Your task to perform on an android device: Add usb-a to the cart on bestbuy, then select checkout. Image 0: 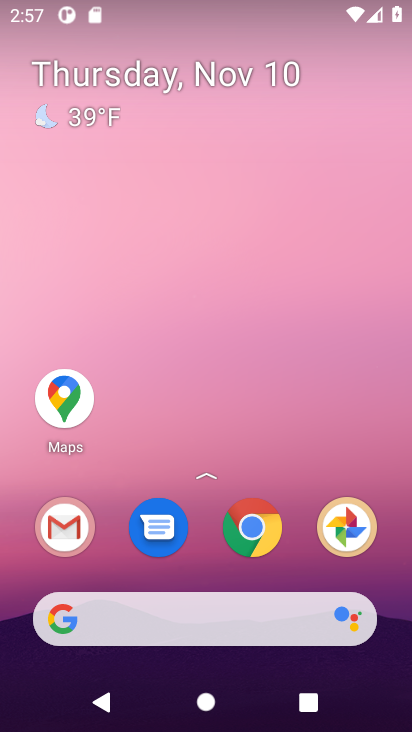
Step 0: drag from (182, 270) to (195, 64)
Your task to perform on an android device: Add usb-a to the cart on bestbuy, then select checkout. Image 1: 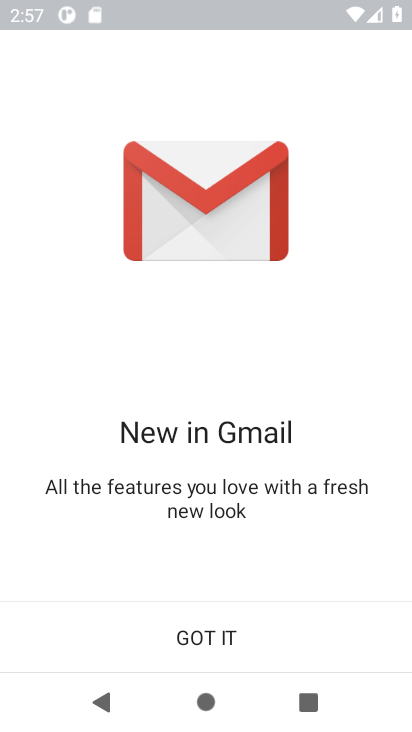
Step 1: press home button
Your task to perform on an android device: Add usb-a to the cart on bestbuy, then select checkout. Image 2: 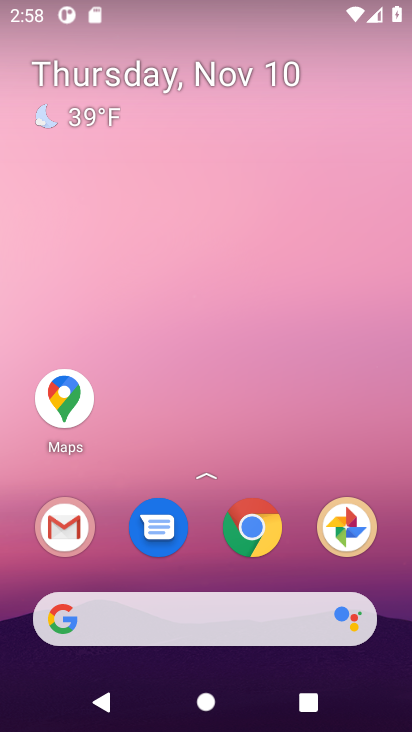
Step 2: drag from (222, 217) to (236, 2)
Your task to perform on an android device: Add usb-a to the cart on bestbuy, then select checkout. Image 3: 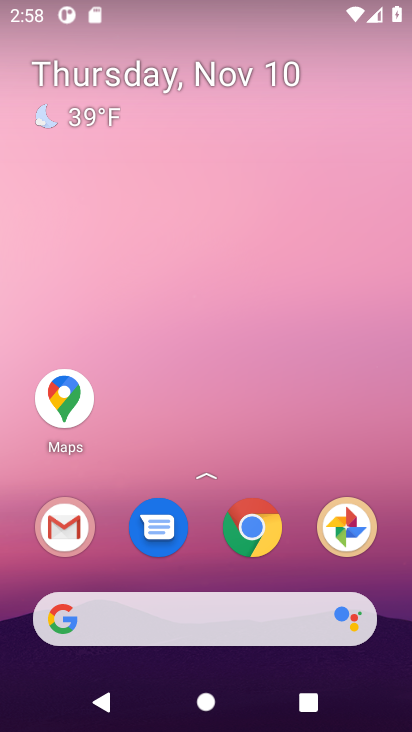
Step 3: drag from (192, 537) to (173, 39)
Your task to perform on an android device: Add usb-a to the cart on bestbuy, then select checkout. Image 4: 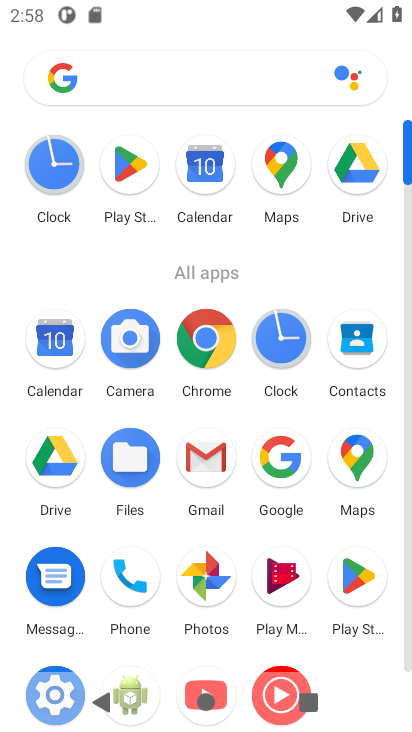
Step 4: click (195, 362)
Your task to perform on an android device: Add usb-a to the cart on bestbuy, then select checkout. Image 5: 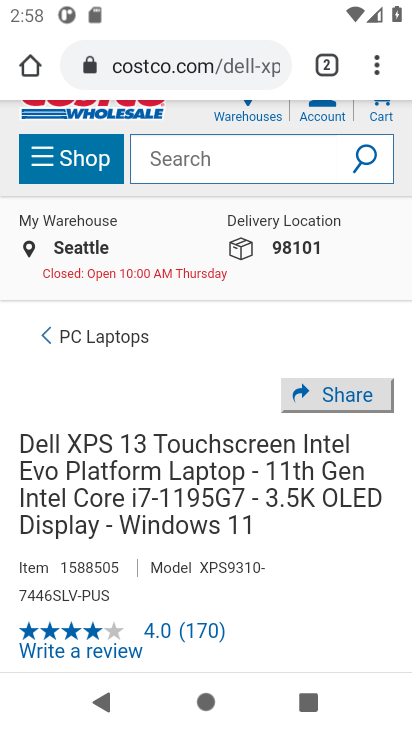
Step 5: drag from (217, 385) to (241, 486)
Your task to perform on an android device: Add usb-a to the cart on bestbuy, then select checkout. Image 6: 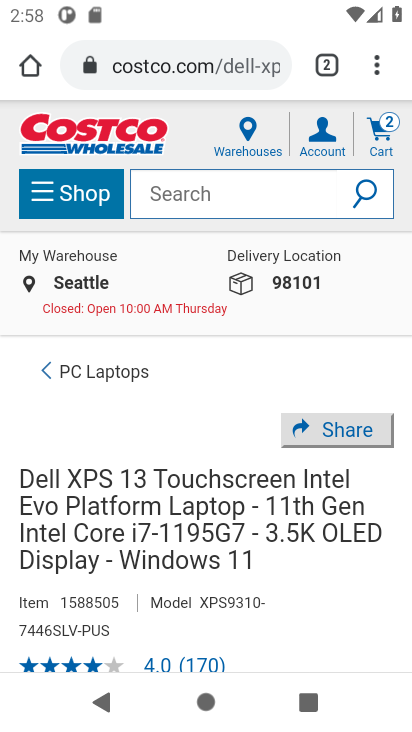
Step 6: click (203, 67)
Your task to perform on an android device: Add usb-a to the cart on bestbuy, then select checkout. Image 7: 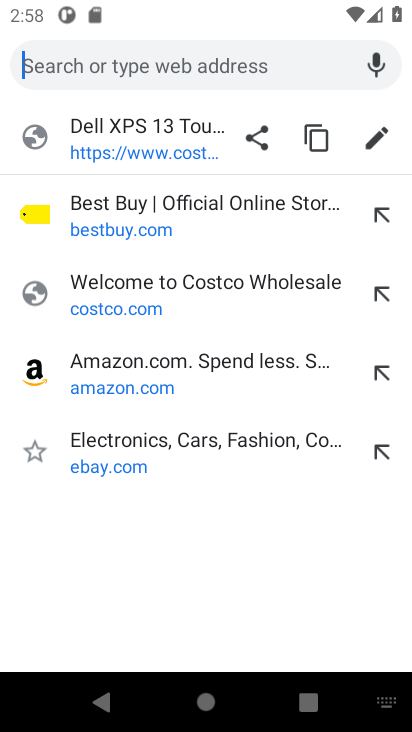
Step 7: type "bestbuy"
Your task to perform on an android device: Add usb-a to the cart on bestbuy, then select checkout. Image 8: 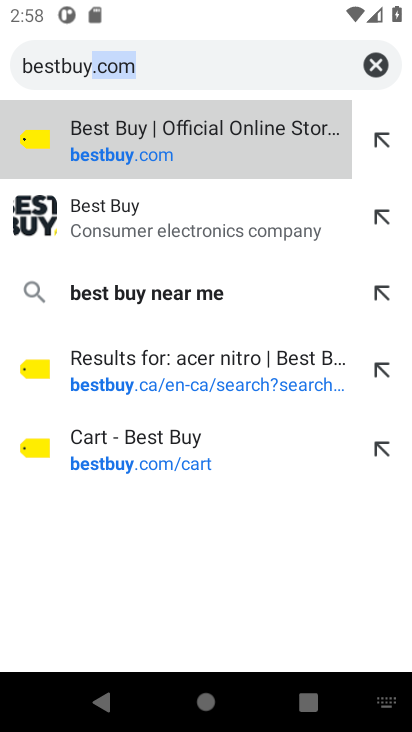
Step 8: press enter
Your task to perform on an android device: Add usb-a to the cart on bestbuy, then select checkout. Image 9: 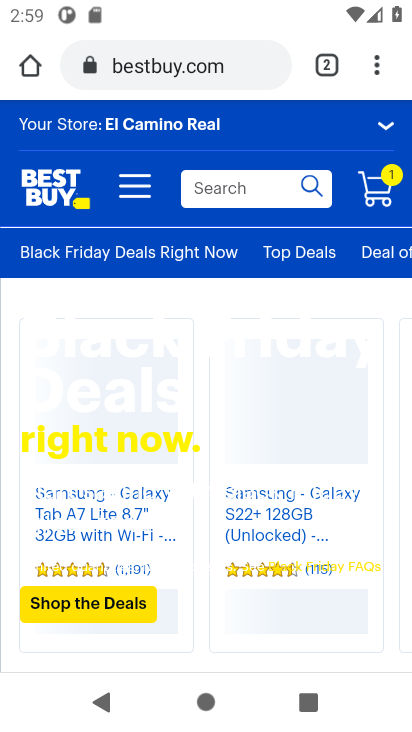
Step 9: click (250, 173)
Your task to perform on an android device: Add usb-a to the cart on bestbuy, then select checkout. Image 10: 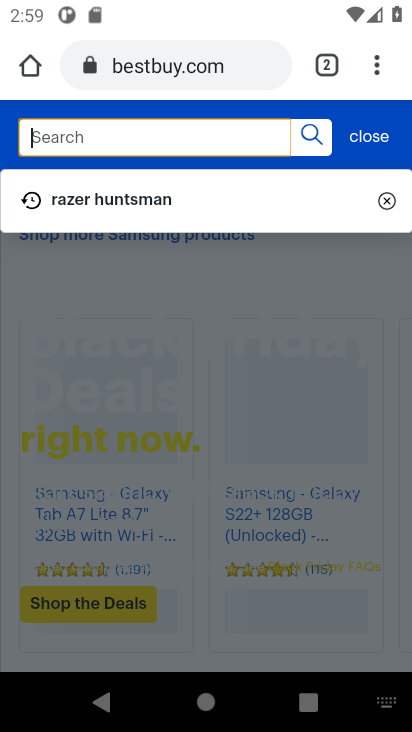
Step 10: type "usb-a "
Your task to perform on an android device: Add usb-a to the cart on bestbuy, then select checkout. Image 11: 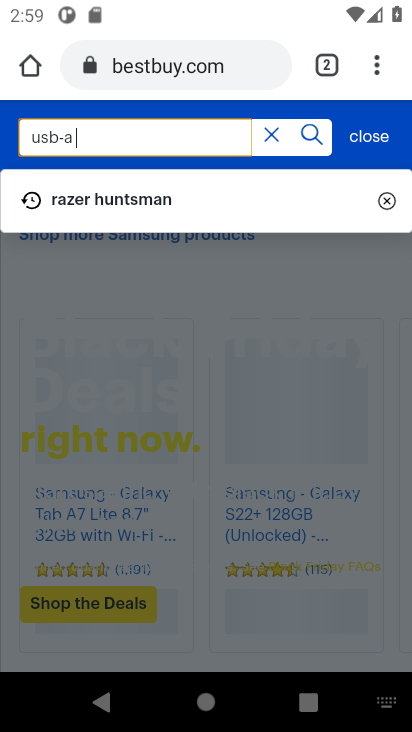
Step 11: press enter
Your task to perform on an android device: Add usb-a to the cart on bestbuy, then select checkout. Image 12: 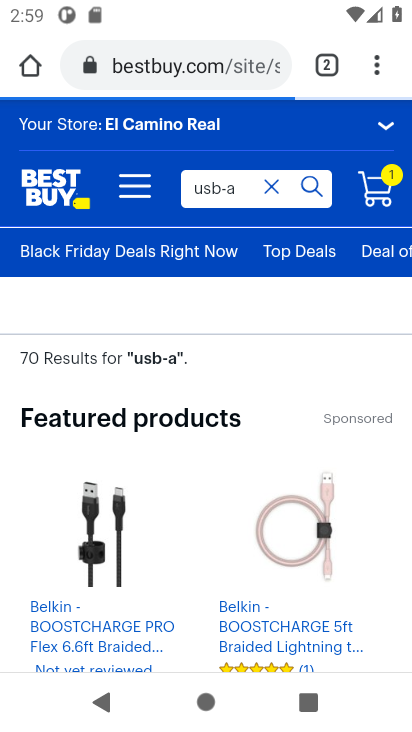
Step 12: drag from (226, 536) to (215, 133)
Your task to perform on an android device: Add usb-a to the cart on bestbuy, then select checkout. Image 13: 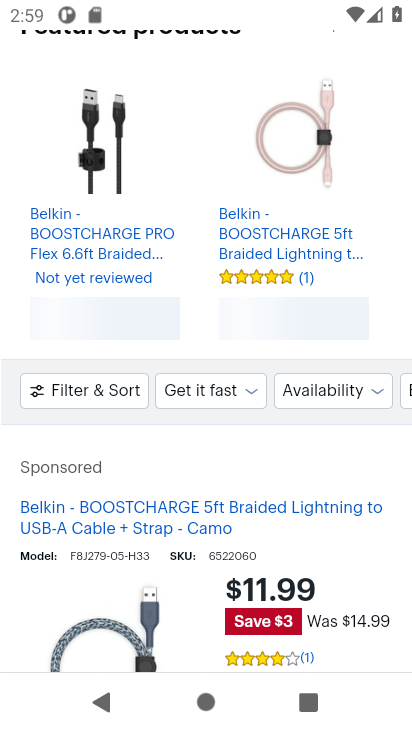
Step 13: click (73, 231)
Your task to perform on an android device: Add usb-a to the cart on bestbuy, then select checkout. Image 14: 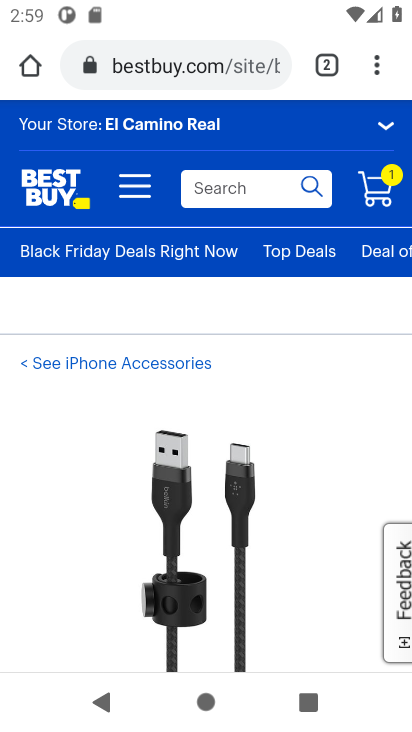
Step 14: click (376, 183)
Your task to perform on an android device: Add usb-a to the cart on bestbuy, then select checkout. Image 15: 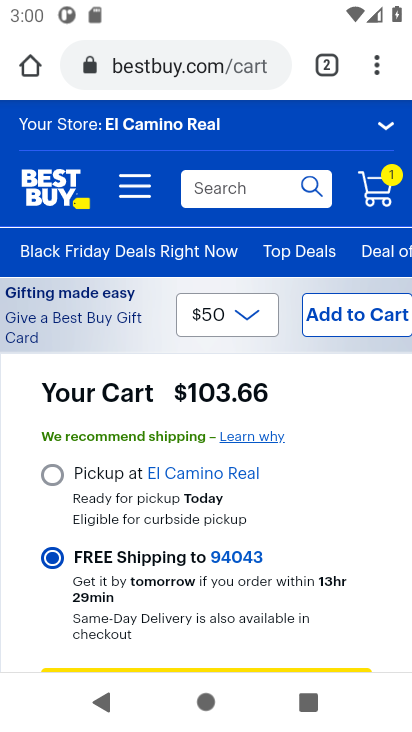
Step 15: drag from (148, 530) to (149, 218)
Your task to perform on an android device: Add usb-a to the cart on bestbuy, then select checkout. Image 16: 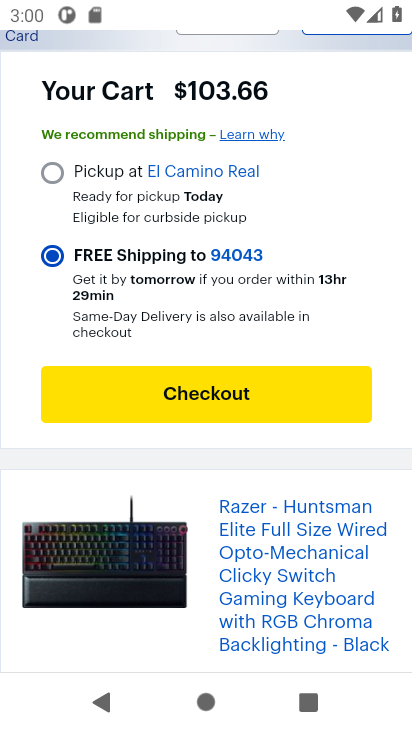
Step 16: drag from (150, 222) to (176, 553)
Your task to perform on an android device: Add usb-a to the cart on bestbuy, then select checkout. Image 17: 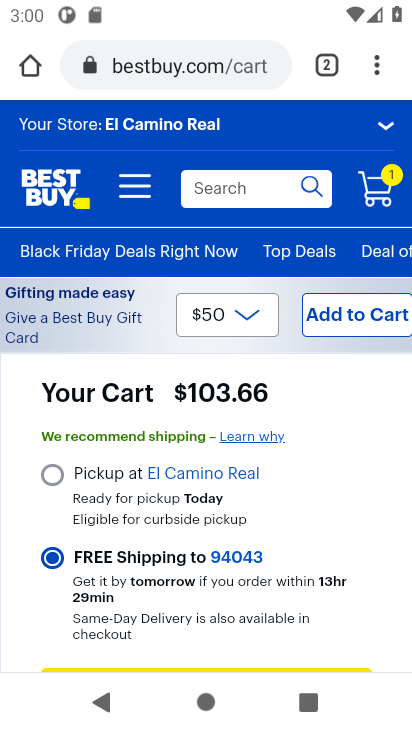
Step 17: drag from (179, 549) to (202, 368)
Your task to perform on an android device: Add usb-a to the cart on bestbuy, then select checkout. Image 18: 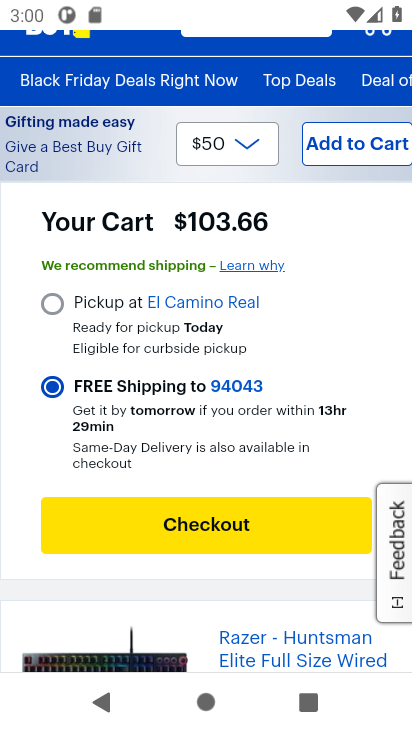
Step 18: click (198, 524)
Your task to perform on an android device: Add usb-a to the cart on bestbuy, then select checkout. Image 19: 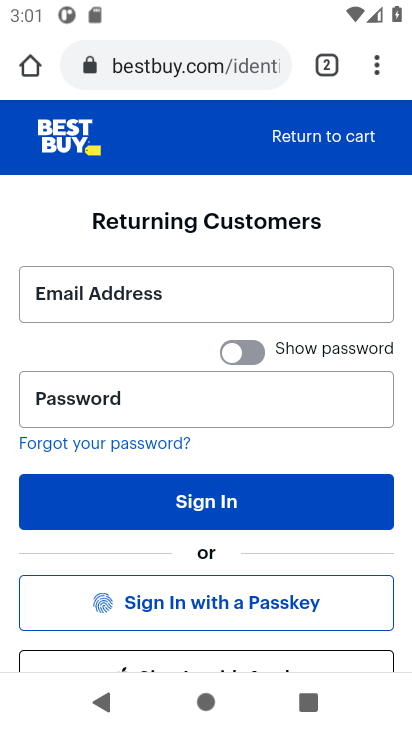
Step 19: task complete